Your task to perform on an android device: empty trash in the gmail app Image 0: 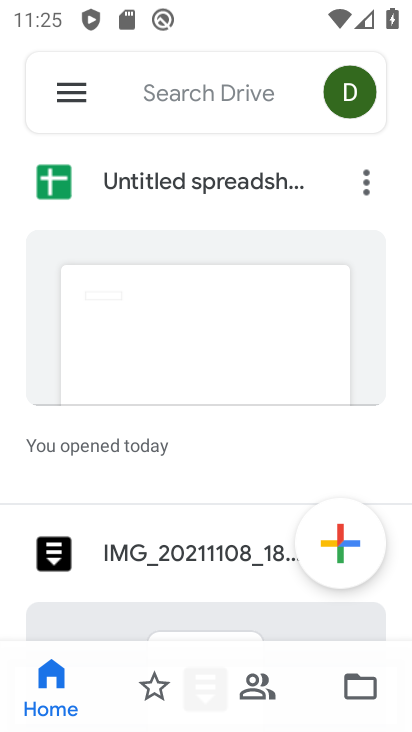
Step 0: press home button
Your task to perform on an android device: empty trash in the gmail app Image 1: 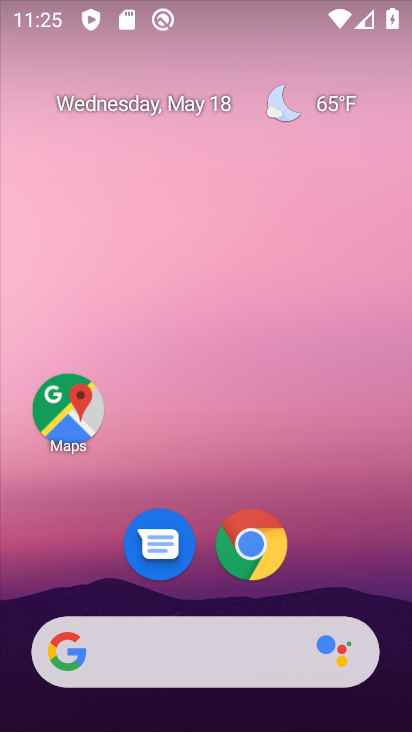
Step 1: drag from (384, 367) to (386, 83)
Your task to perform on an android device: empty trash in the gmail app Image 2: 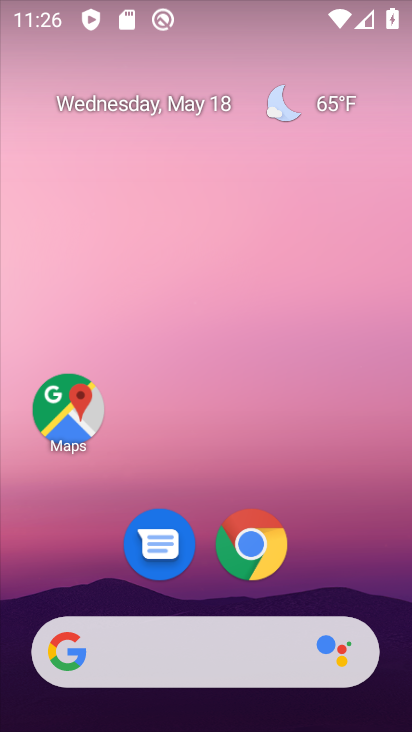
Step 2: drag from (358, 568) to (345, 84)
Your task to perform on an android device: empty trash in the gmail app Image 3: 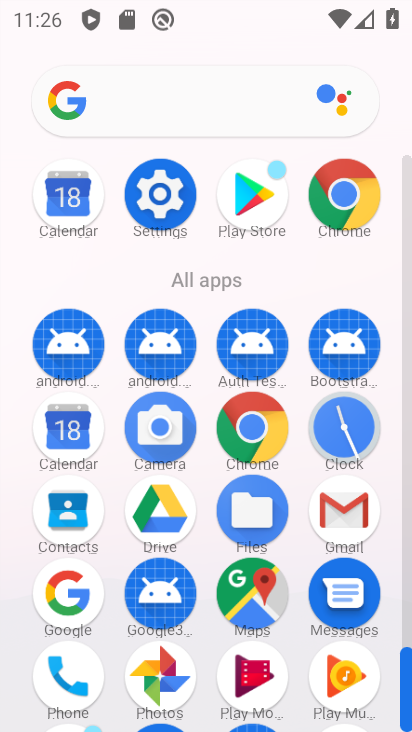
Step 3: click (349, 513)
Your task to perform on an android device: empty trash in the gmail app Image 4: 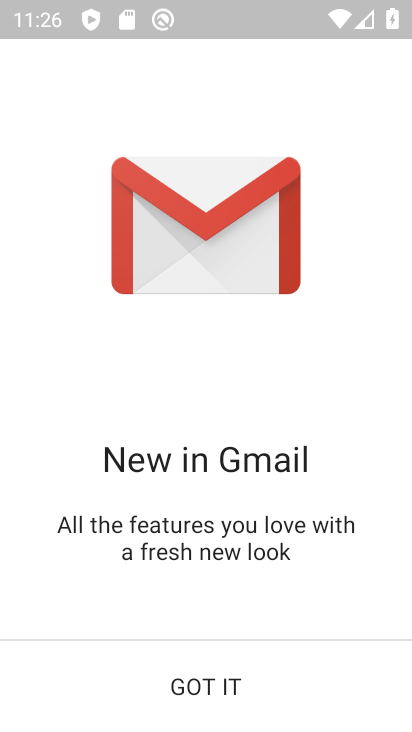
Step 4: click (300, 671)
Your task to perform on an android device: empty trash in the gmail app Image 5: 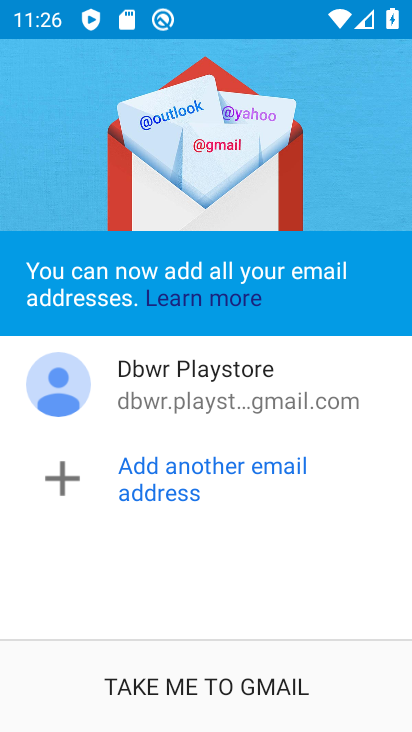
Step 5: click (303, 673)
Your task to perform on an android device: empty trash in the gmail app Image 6: 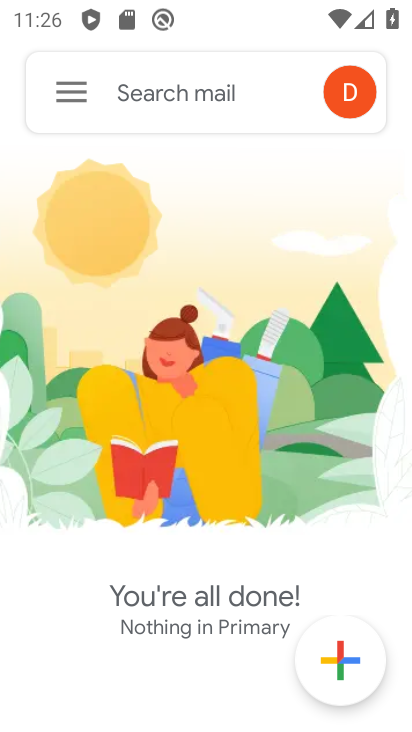
Step 6: click (74, 108)
Your task to perform on an android device: empty trash in the gmail app Image 7: 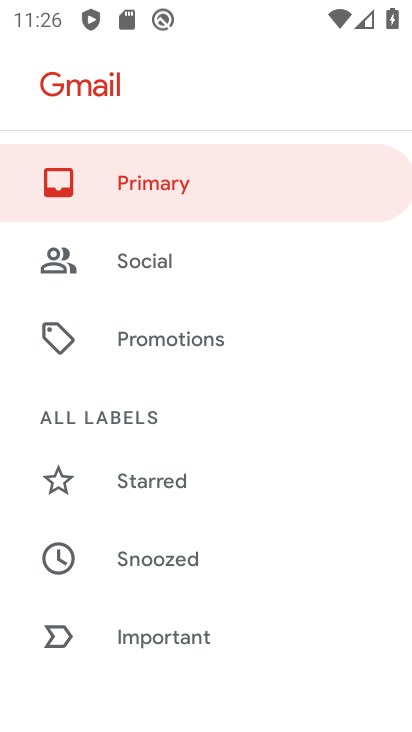
Step 7: drag from (261, 484) to (286, 394)
Your task to perform on an android device: empty trash in the gmail app Image 8: 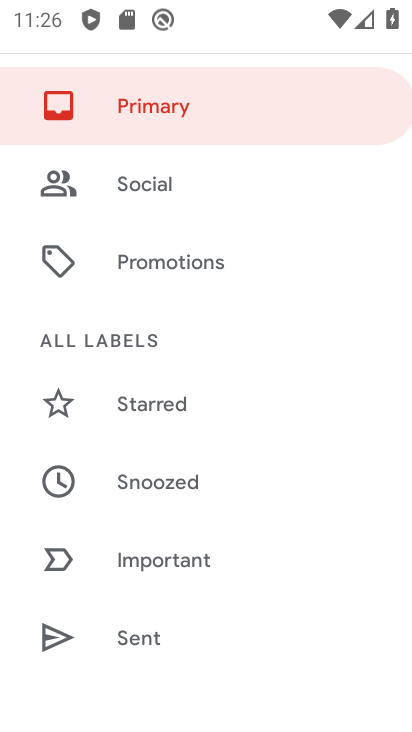
Step 8: click (317, 424)
Your task to perform on an android device: empty trash in the gmail app Image 9: 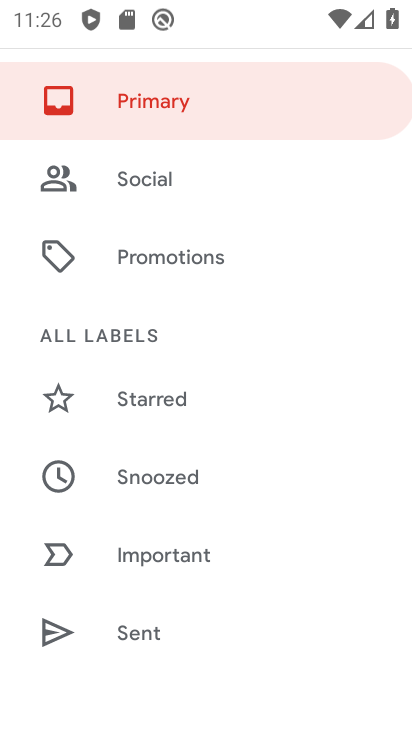
Step 9: drag from (310, 533) to (314, 375)
Your task to perform on an android device: empty trash in the gmail app Image 10: 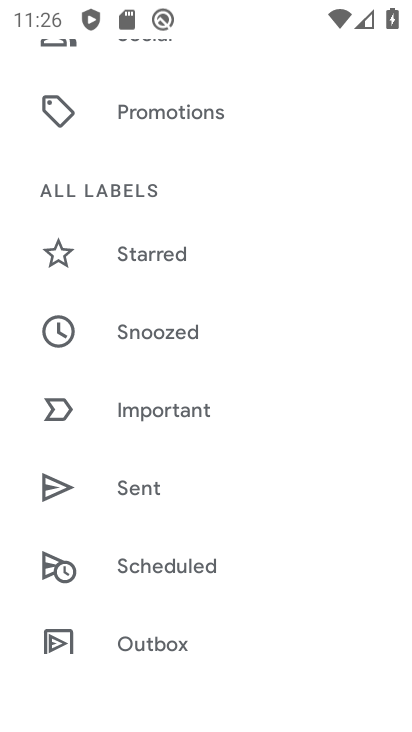
Step 10: drag from (291, 553) to (308, 405)
Your task to perform on an android device: empty trash in the gmail app Image 11: 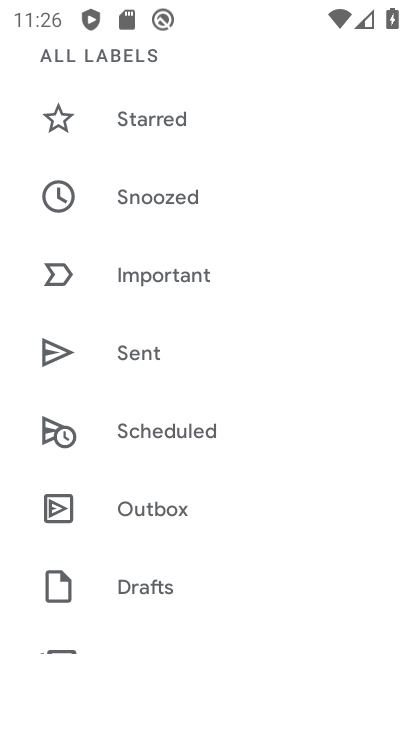
Step 11: drag from (306, 442) to (307, 390)
Your task to perform on an android device: empty trash in the gmail app Image 12: 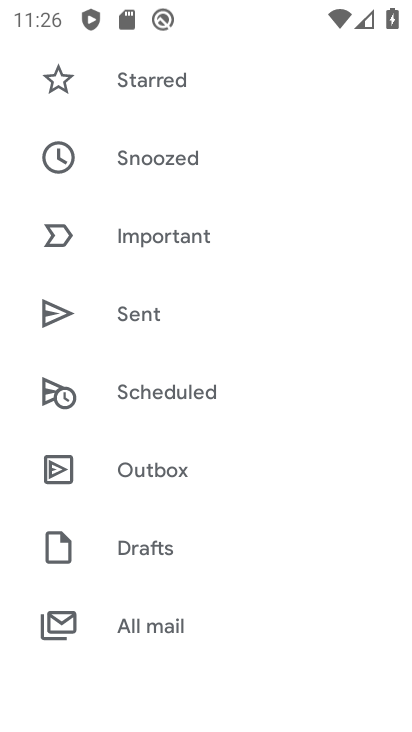
Step 12: drag from (287, 566) to (291, 409)
Your task to perform on an android device: empty trash in the gmail app Image 13: 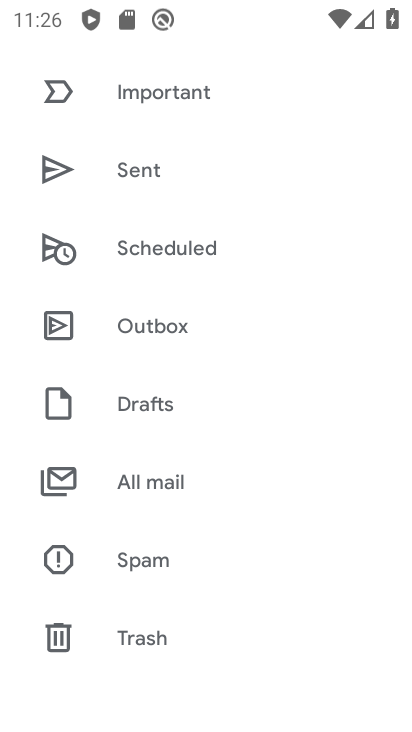
Step 13: drag from (284, 519) to (286, 431)
Your task to perform on an android device: empty trash in the gmail app Image 14: 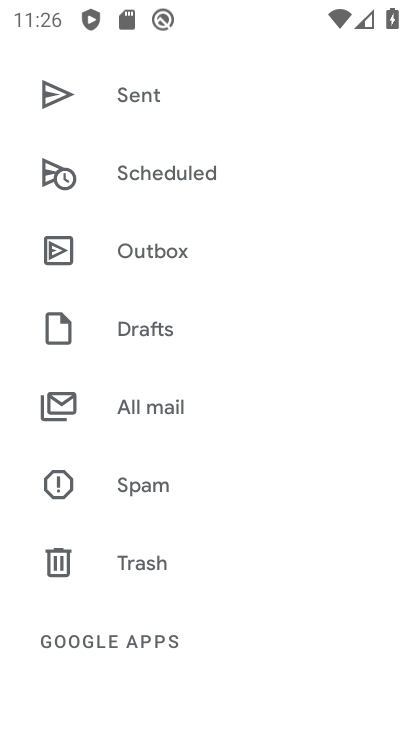
Step 14: drag from (286, 589) to (293, 403)
Your task to perform on an android device: empty trash in the gmail app Image 15: 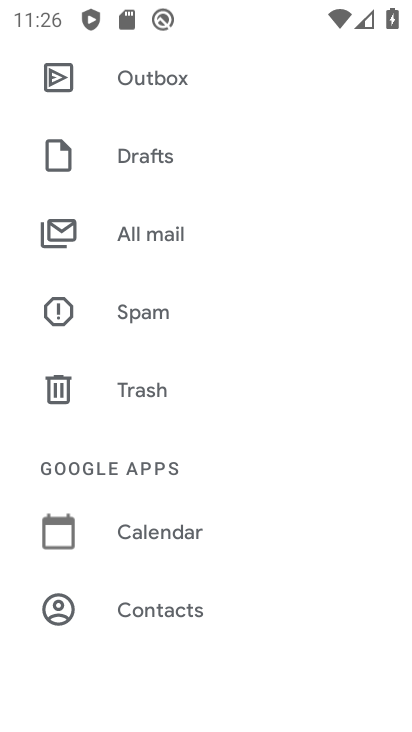
Step 15: click (151, 397)
Your task to perform on an android device: empty trash in the gmail app Image 16: 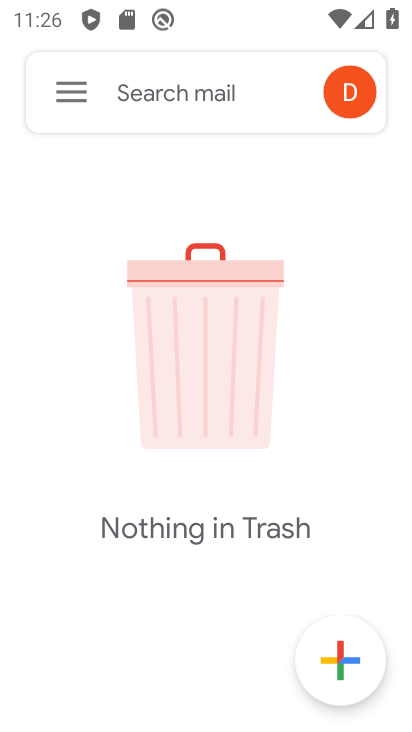
Step 16: task complete